Your task to perform on an android device: change notifications settings Image 0: 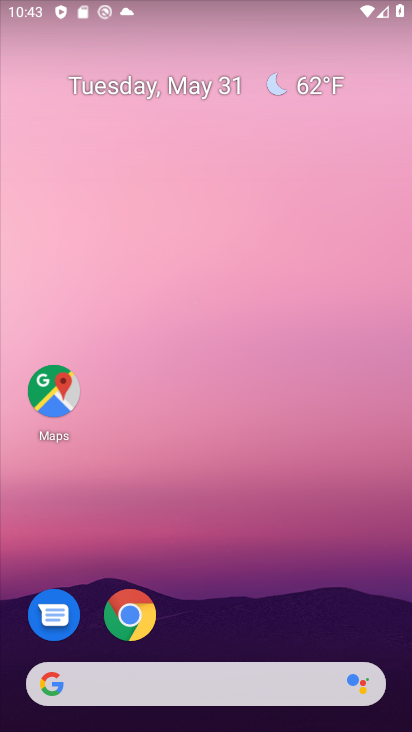
Step 0: drag from (234, 679) to (198, 280)
Your task to perform on an android device: change notifications settings Image 1: 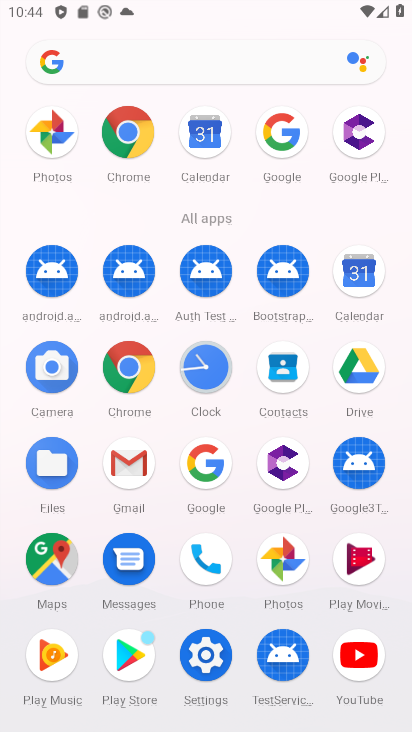
Step 1: click (209, 647)
Your task to perform on an android device: change notifications settings Image 2: 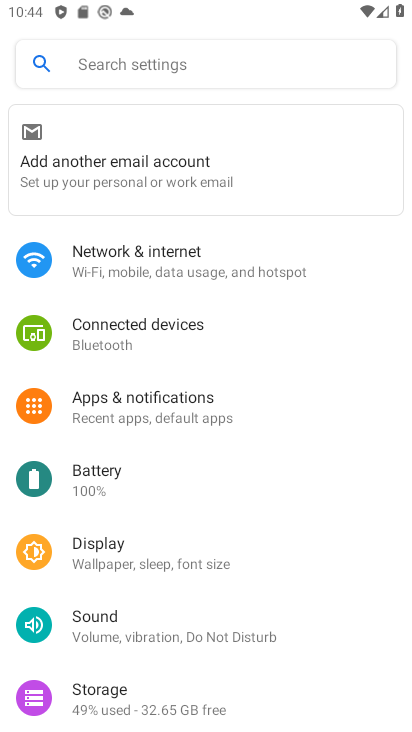
Step 2: click (126, 634)
Your task to perform on an android device: change notifications settings Image 3: 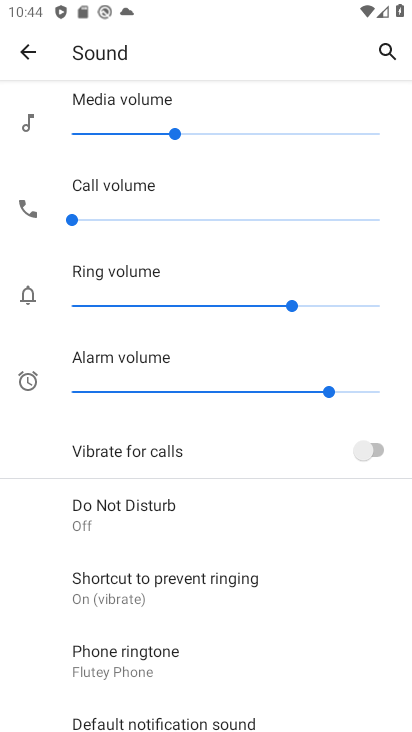
Step 3: click (369, 446)
Your task to perform on an android device: change notifications settings Image 4: 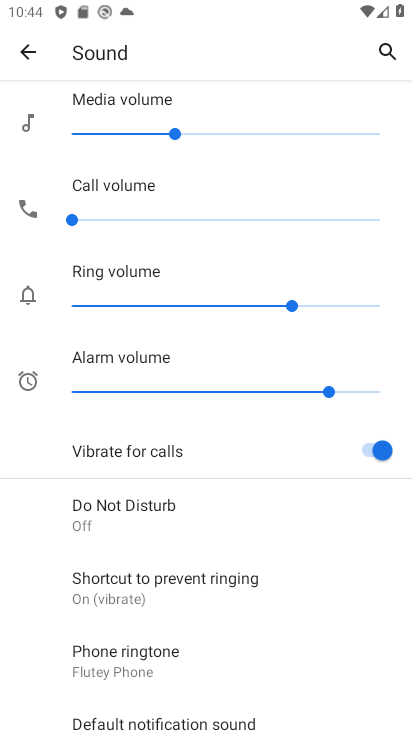
Step 4: task complete